Your task to perform on an android device: Open notification settings Image 0: 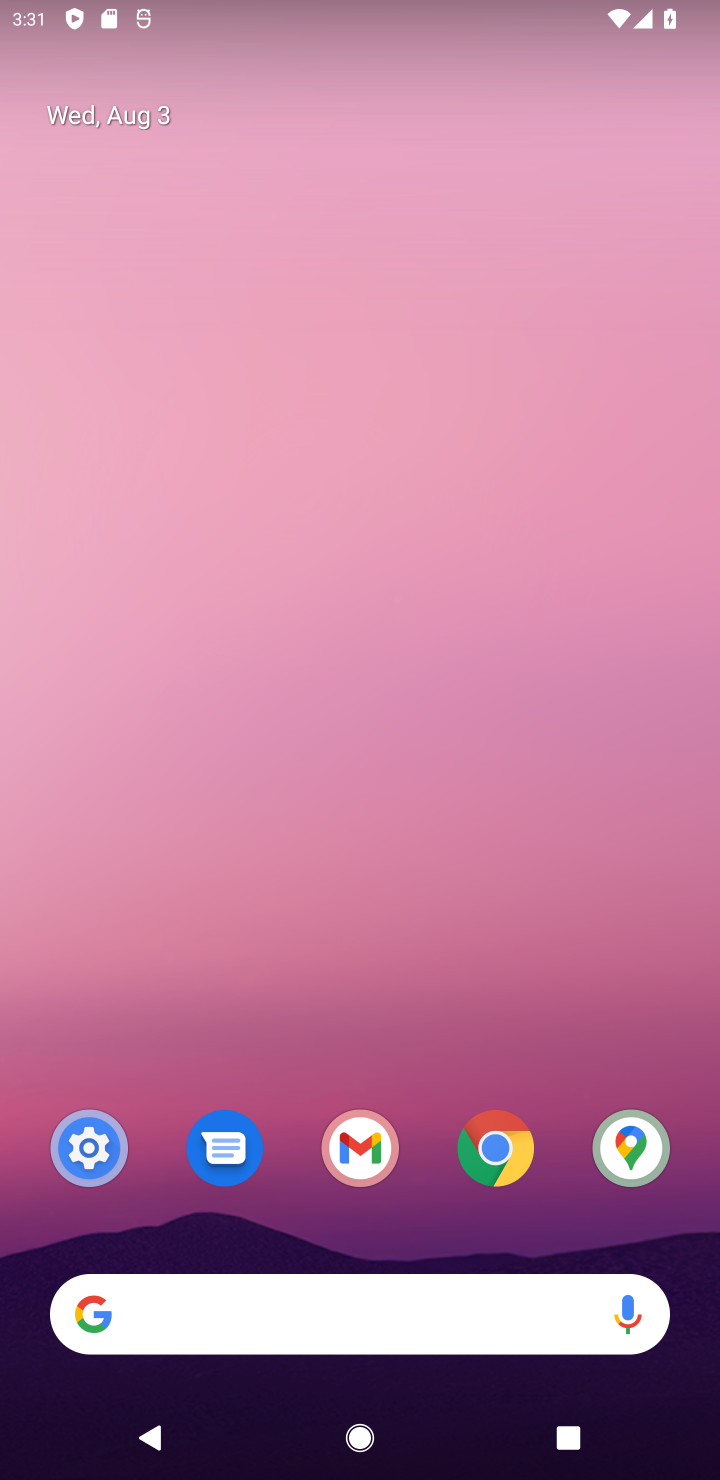
Step 0: press home button
Your task to perform on an android device: Open notification settings Image 1: 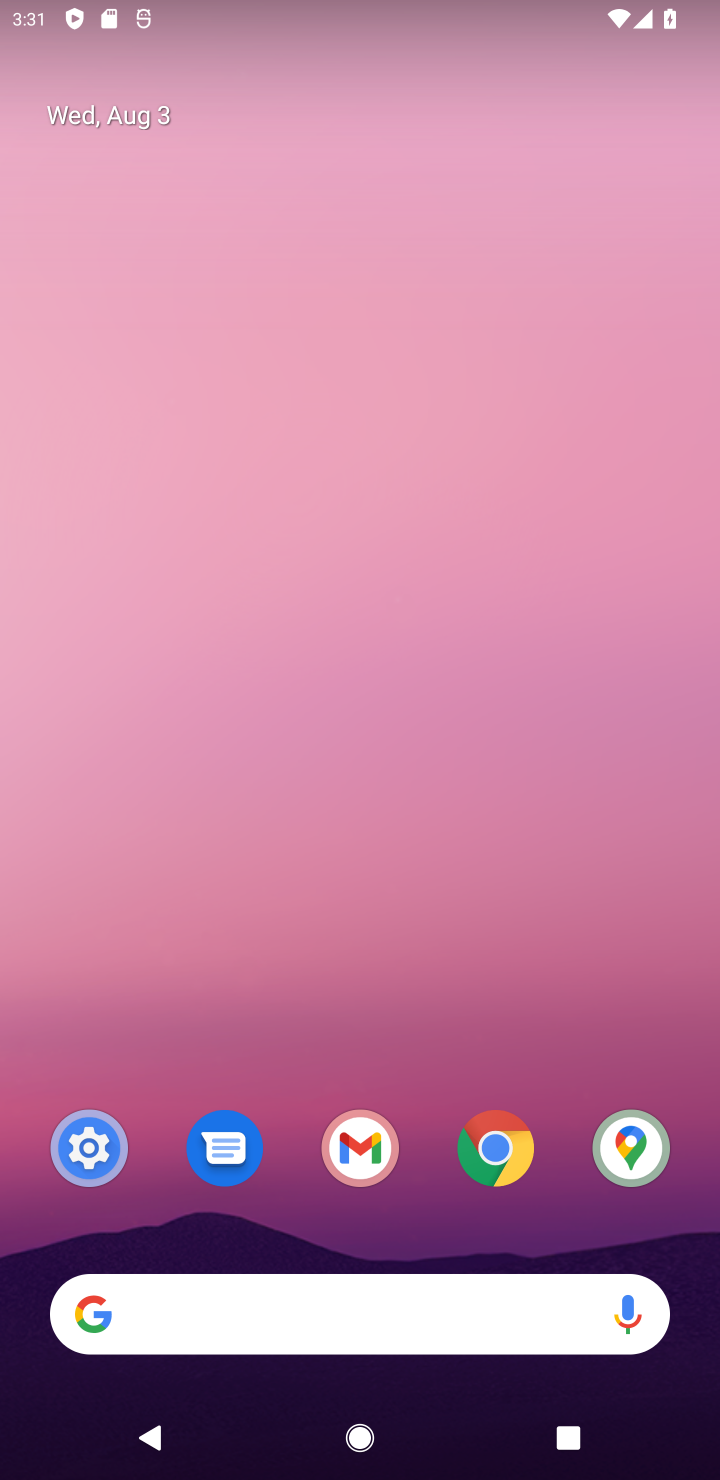
Step 1: drag from (411, 1105) to (447, 199)
Your task to perform on an android device: Open notification settings Image 2: 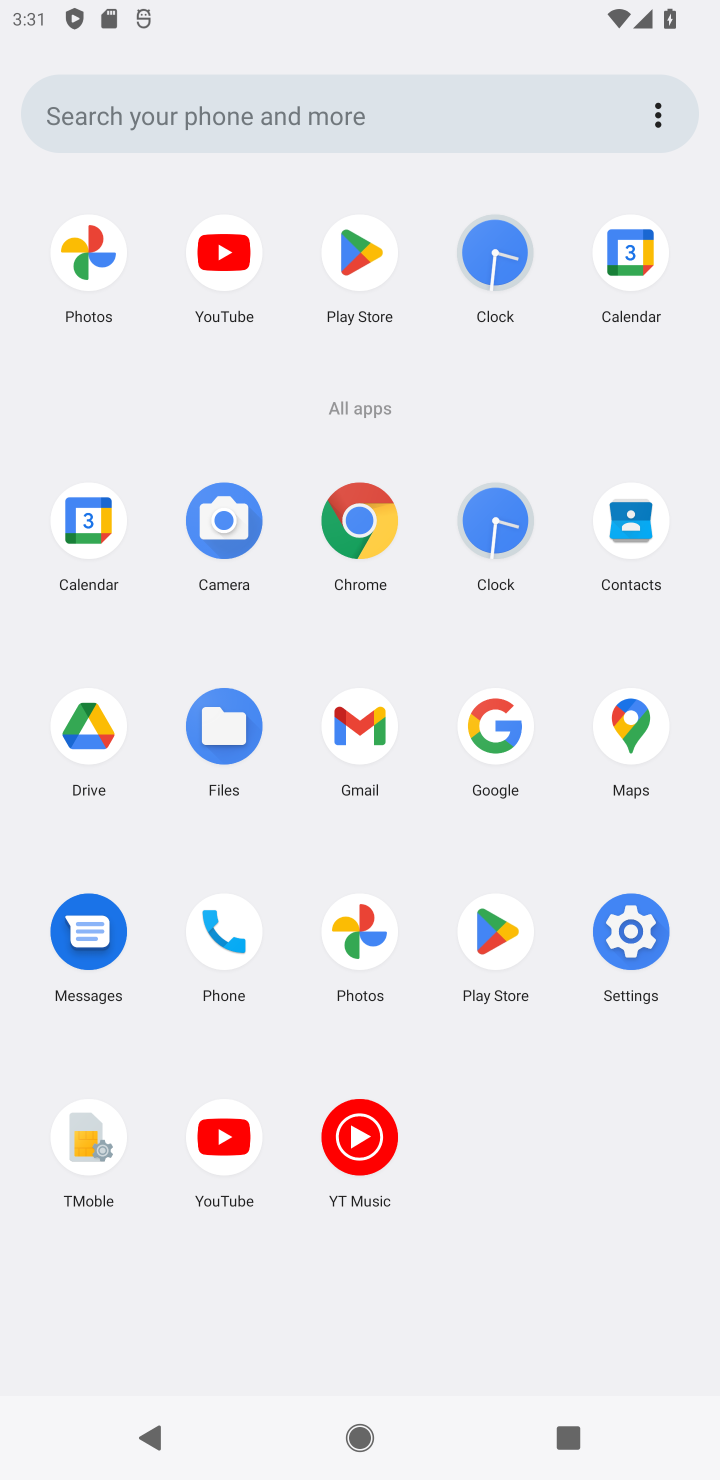
Step 2: click (636, 948)
Your task to perform on an android device: Open notification settings Image 3: 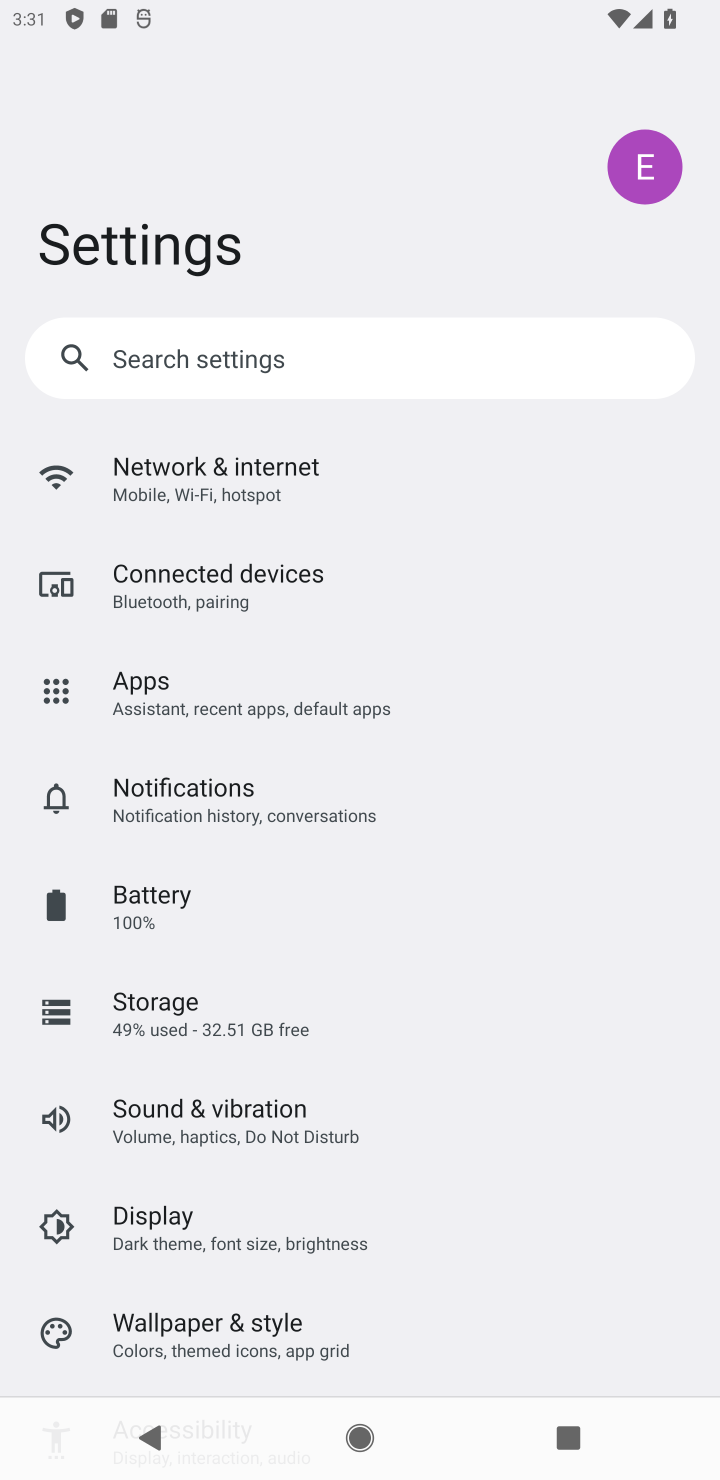
Step 3: drag from (610, 1201) to (615, 1020)
Your task to perform on an android device: Open notification settings Image 4: 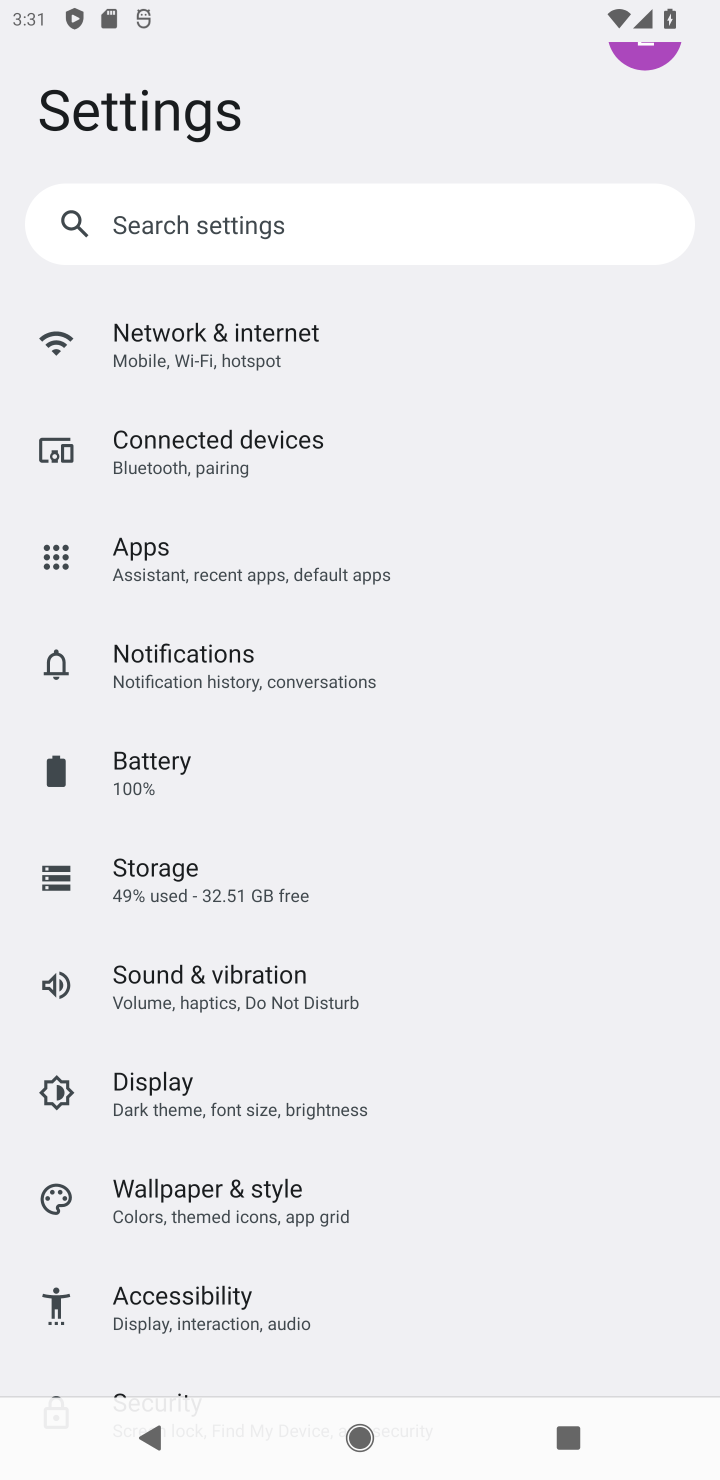
Step 4: drag from (545, 1233) to (566, 1009)
Your task to perform on an android device: Open notification settings Image 5: 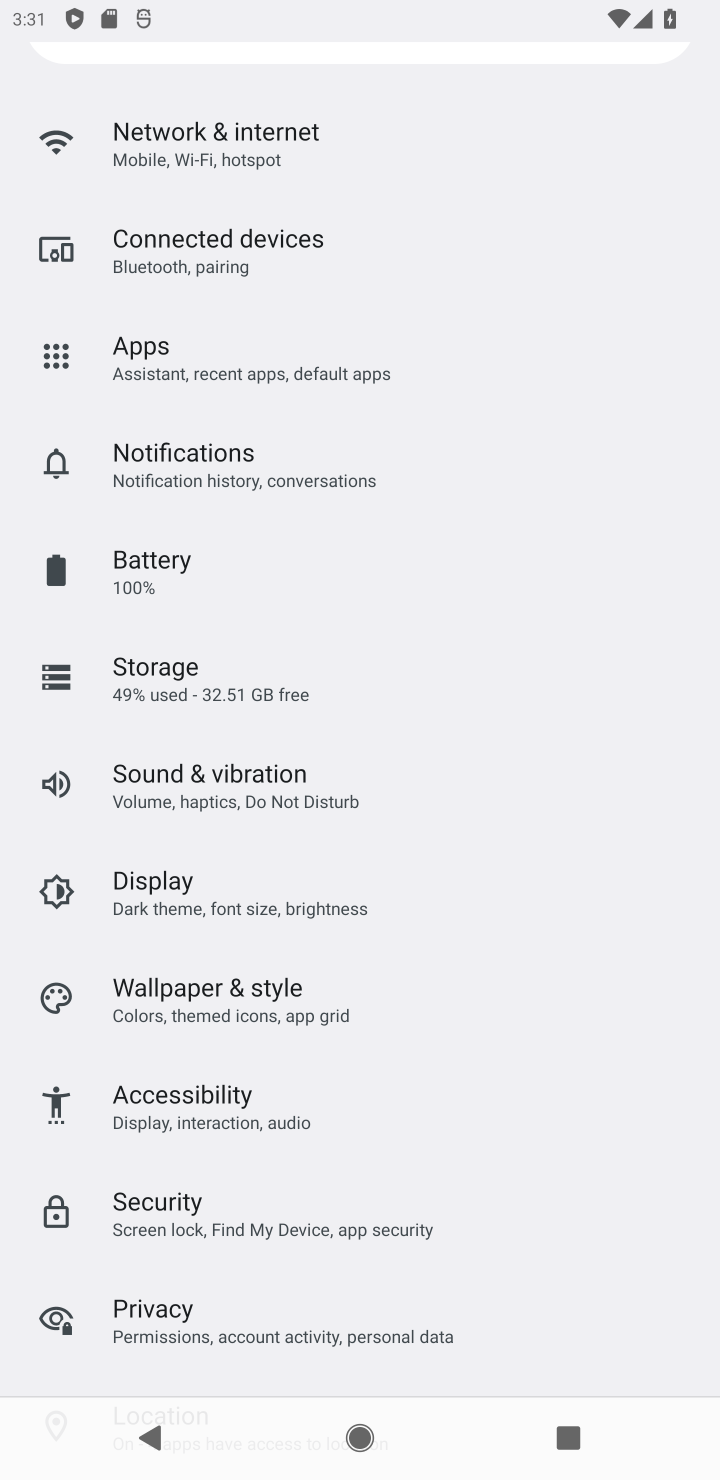
Step 5: drag from (562, 1294) to (585, 1030)
Your task to perform on an android device: Open notification settings Image 6: 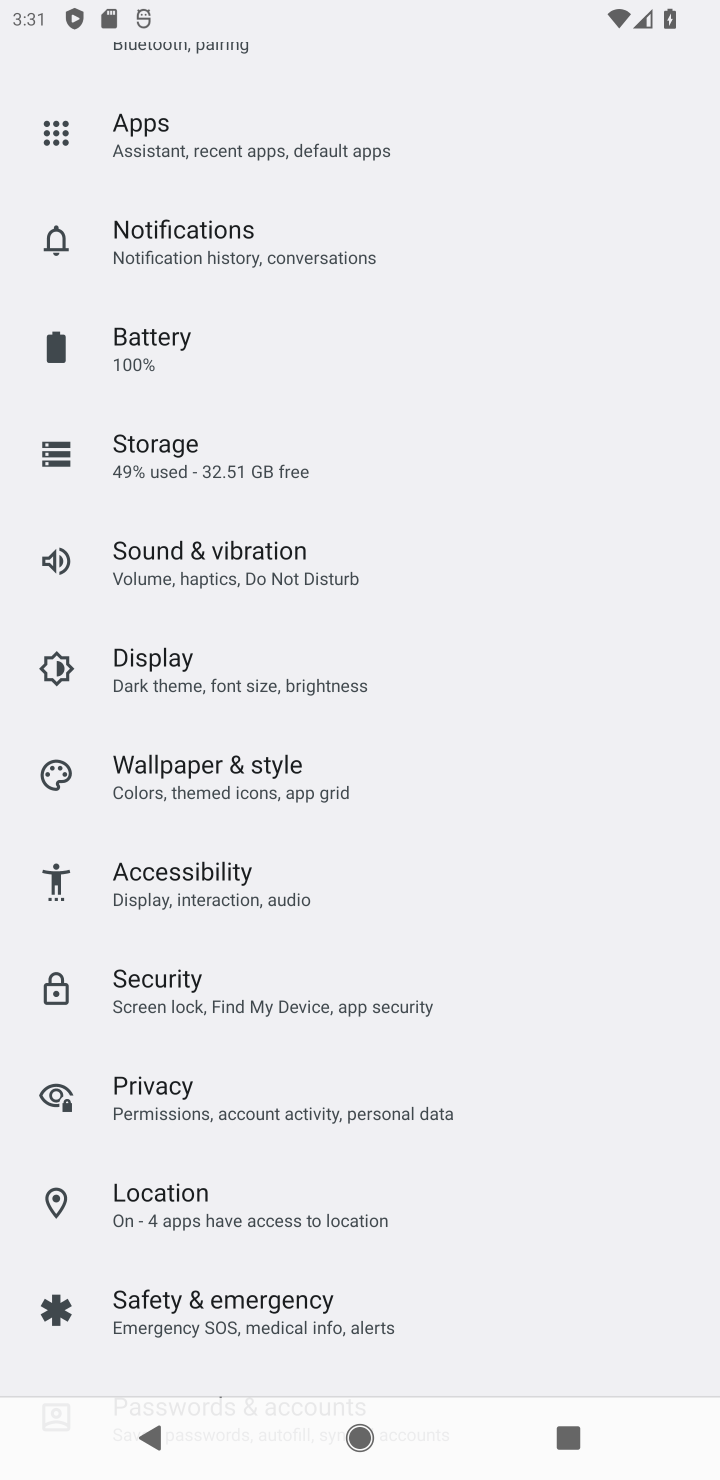
Step 6: drag from (579, 1281) to (616, 991)
Your task to perform on an android device: Open notification settings Image 7: 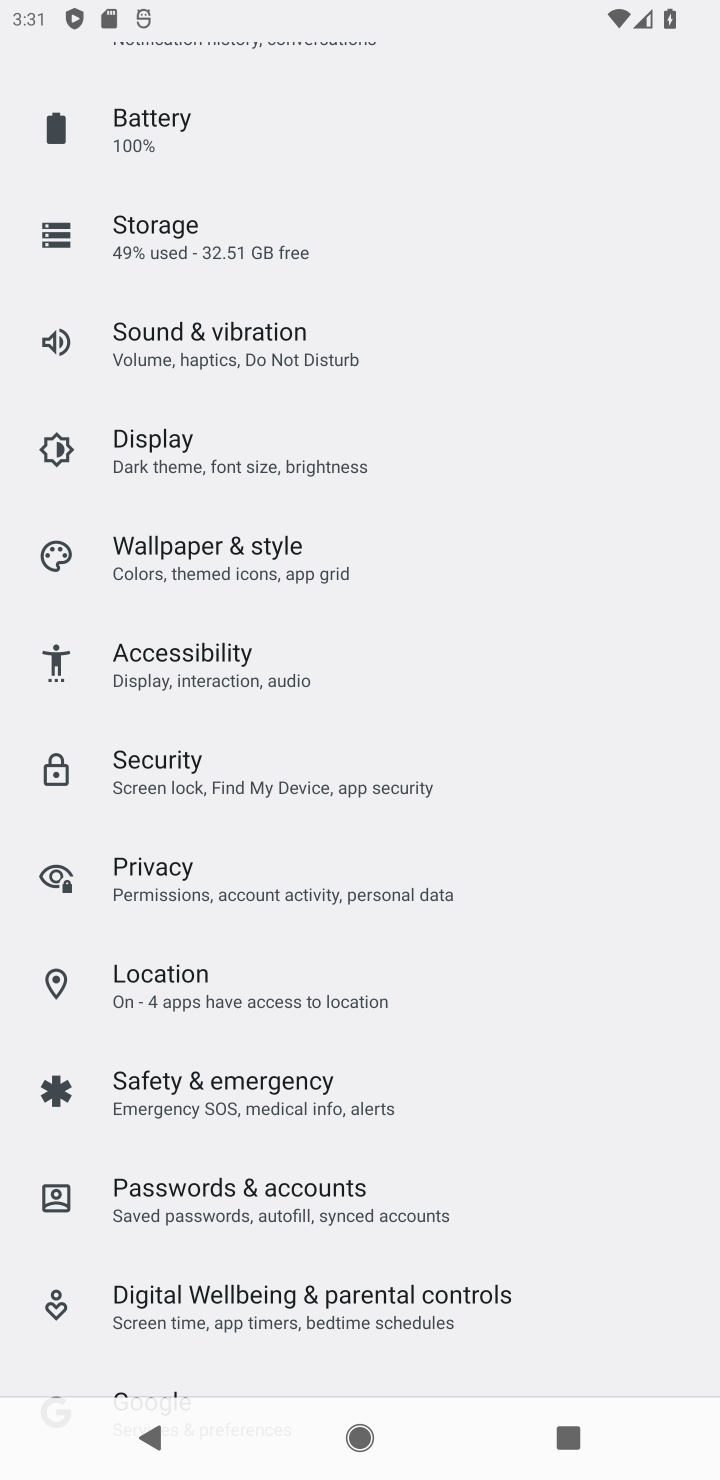
Step 7: drag from (582, 1313) to (608, 926)
Your task to perform on an android device: Open notification settings Image 8: 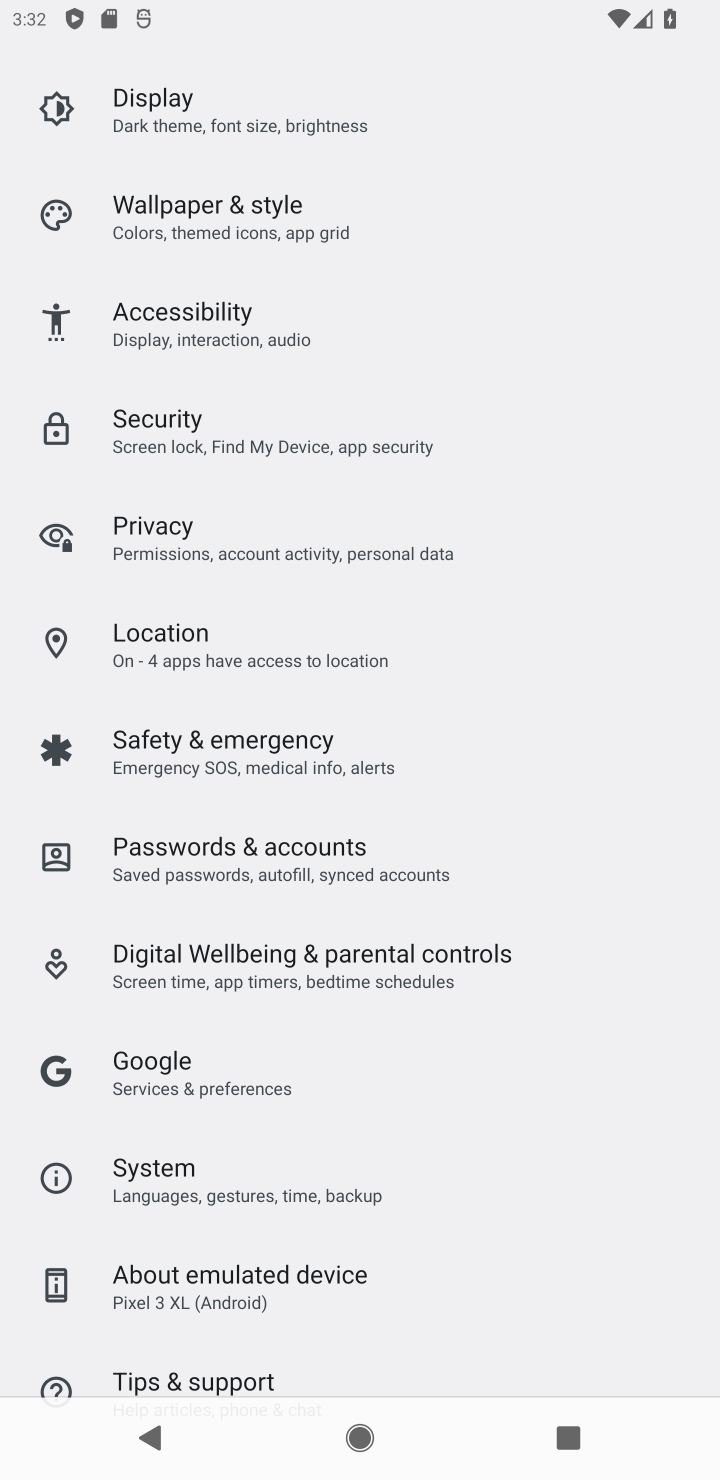
Step 8: drag from (580, 628) to (595, 967)
Your task to perform on an android device: Open notification settings Image 9: 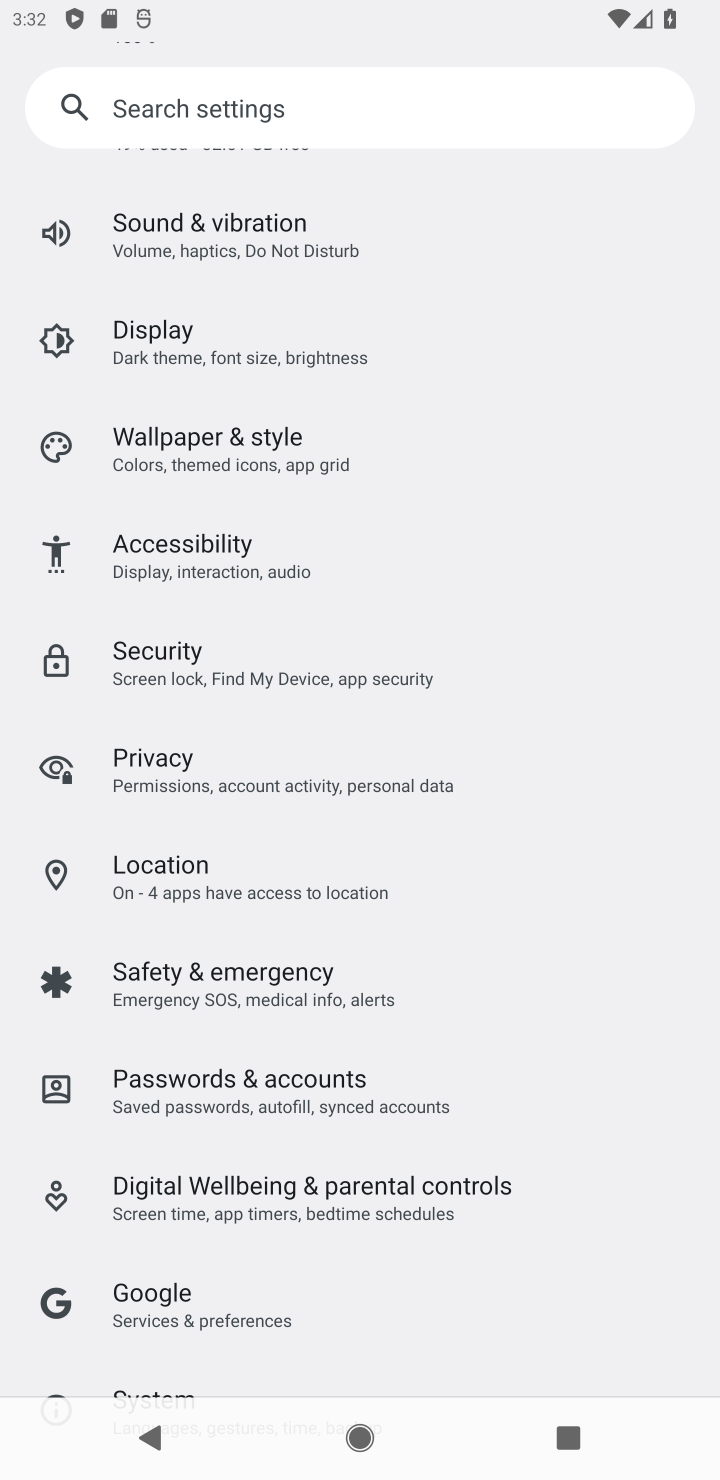
Step 9: drag from (583, 673) to (590, 954)
Your task to perform on an android device: Open notification settings Image 10: 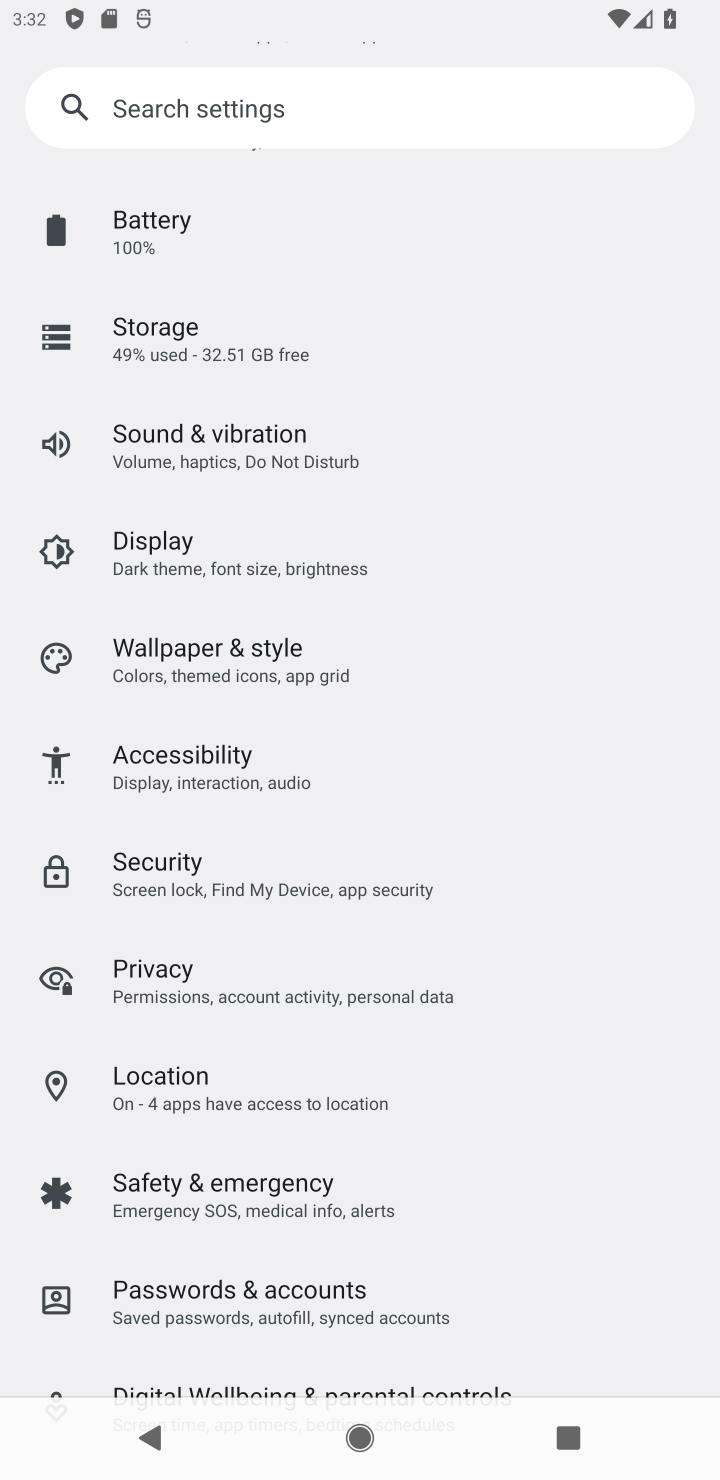
Step 10: drag from (592, 587) to (610, 976)
Your task to perform on an android device: Open notification settings Image 11: 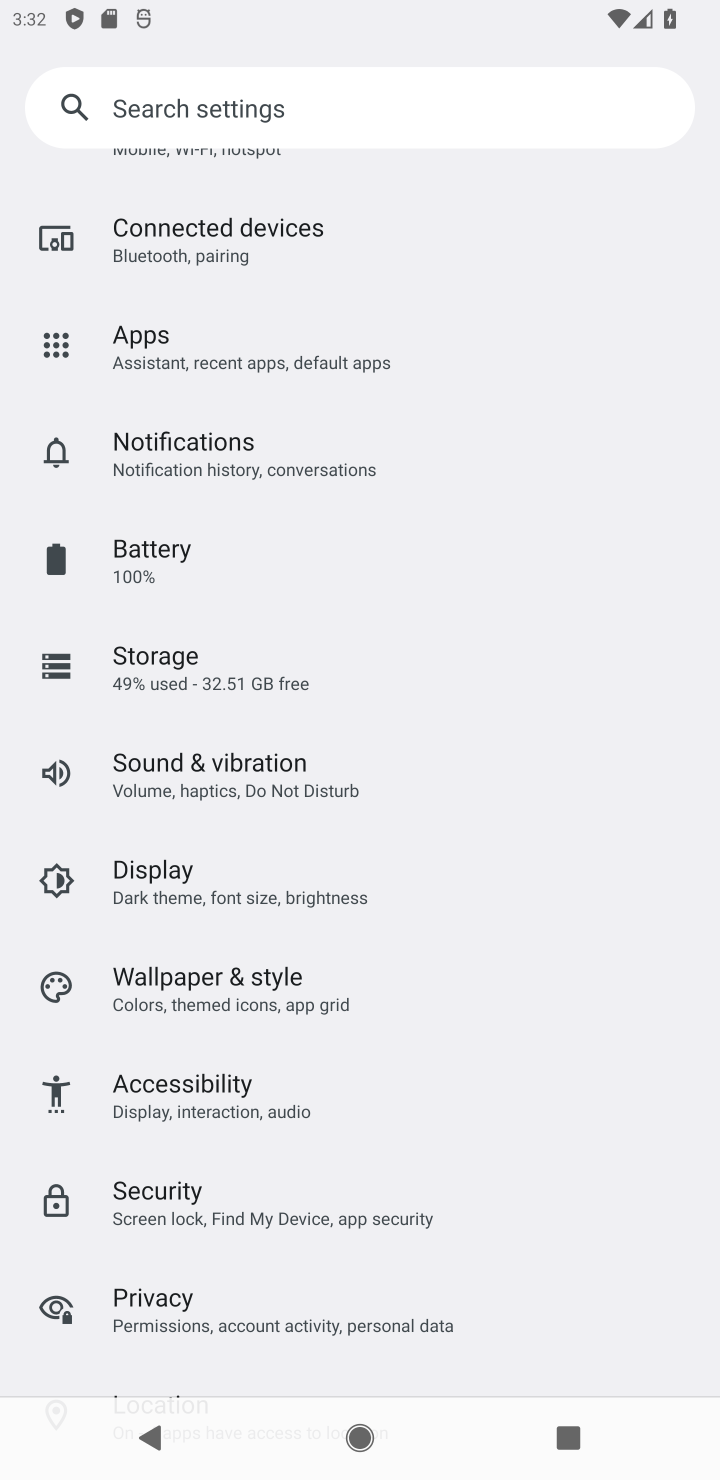
Step 11: drag from (566, 571) to (566, 984)
Your task to perform on an android device: Open notification settings Image 12: 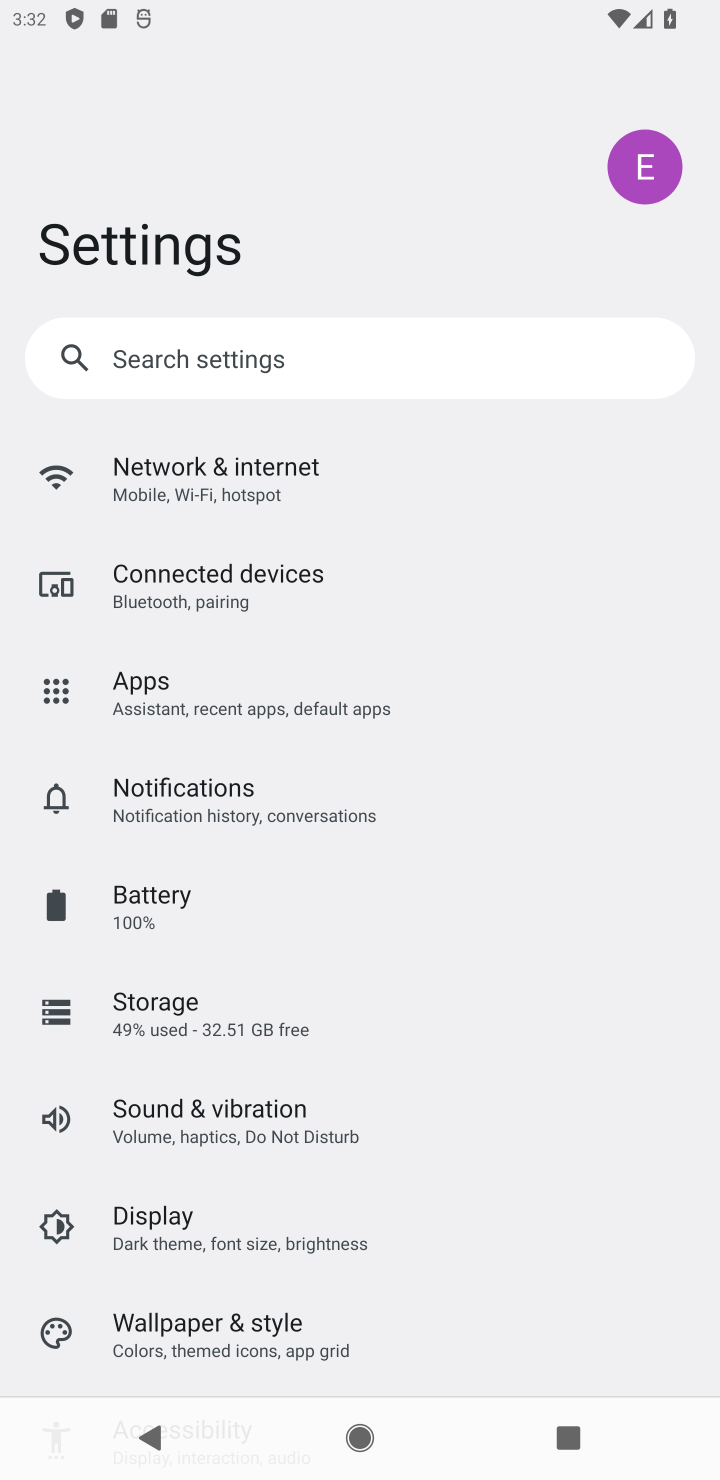
Step 12: drag from (566, 540) to (517, 1069)
Your task to perform on an android device: Open notification settings Image 13: 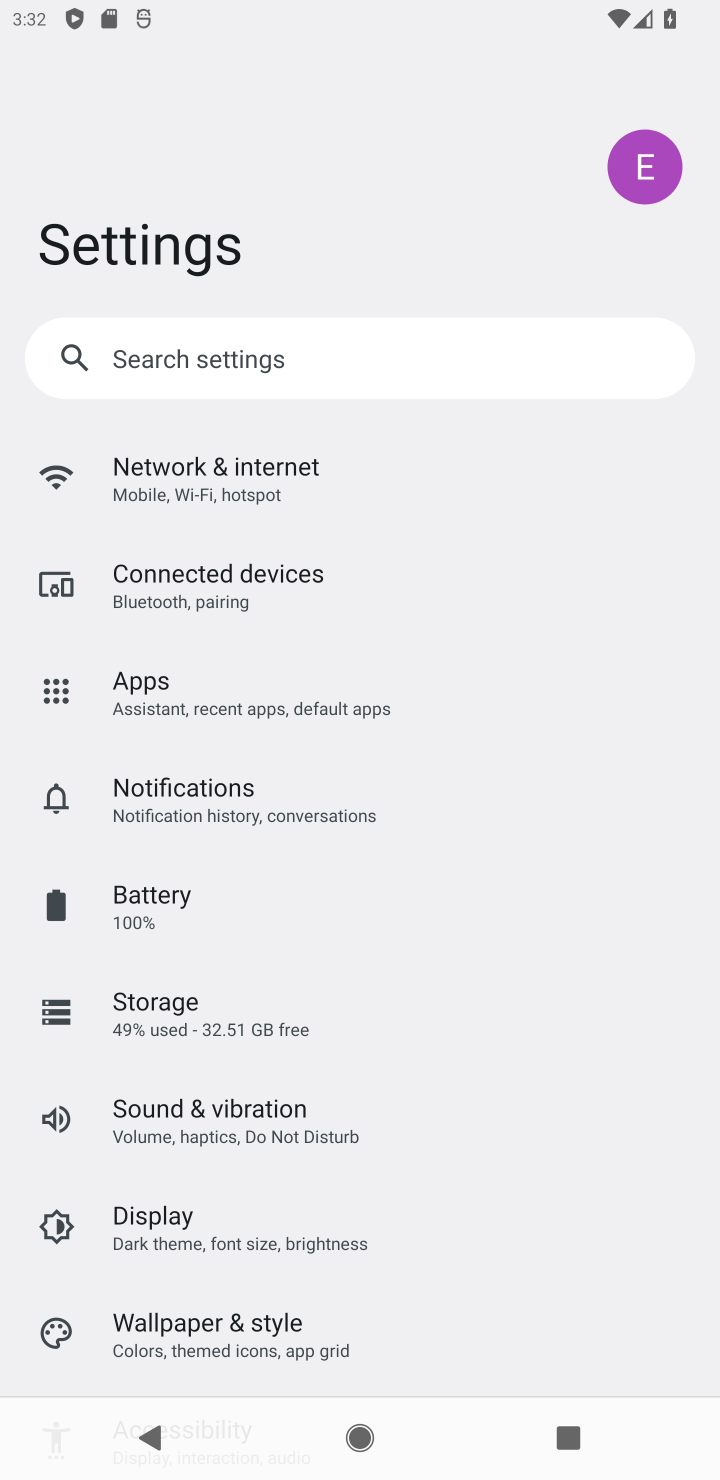
Step 13: click (352, 807)
Your task to perform on an android device: Open notification settings Image 14: 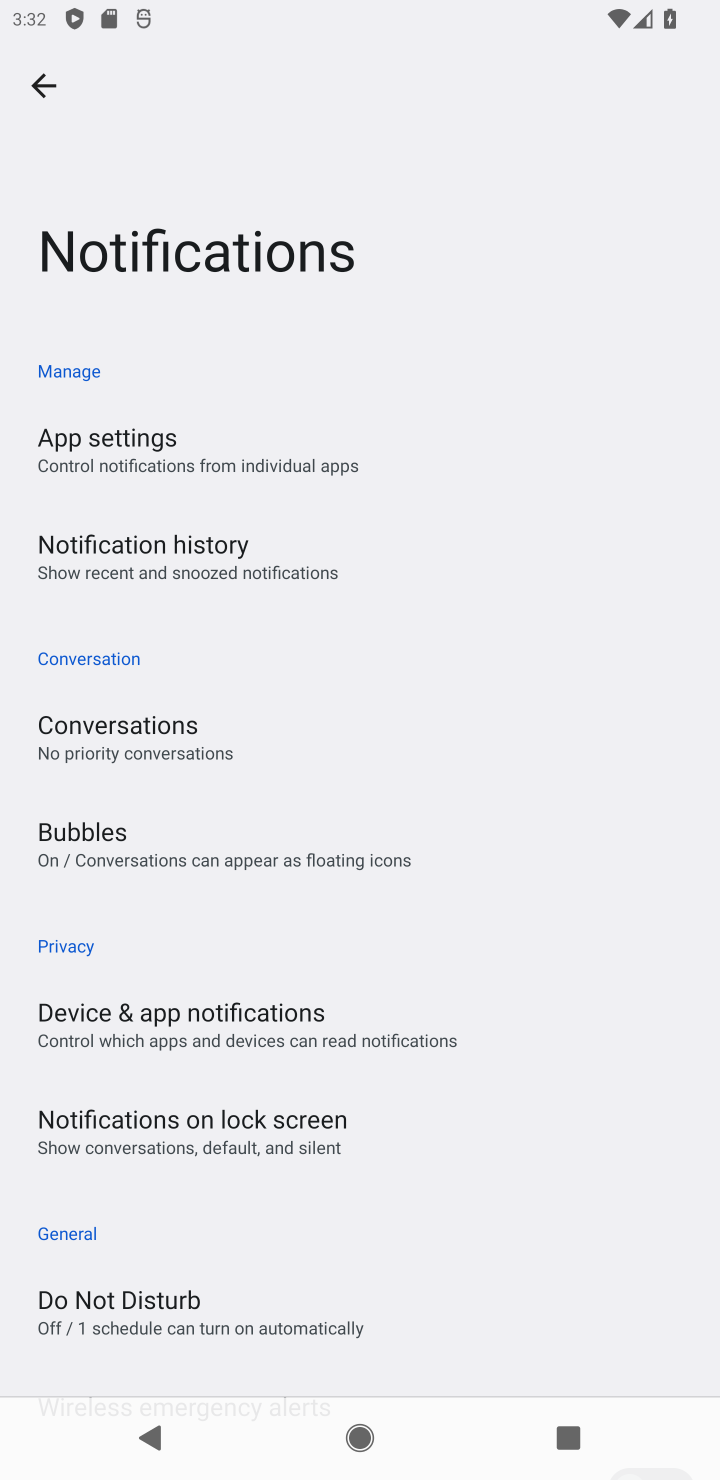
Step 14: task complete